Your task to perform on an android device: turn on notifications settings in the gmail app Image 0: 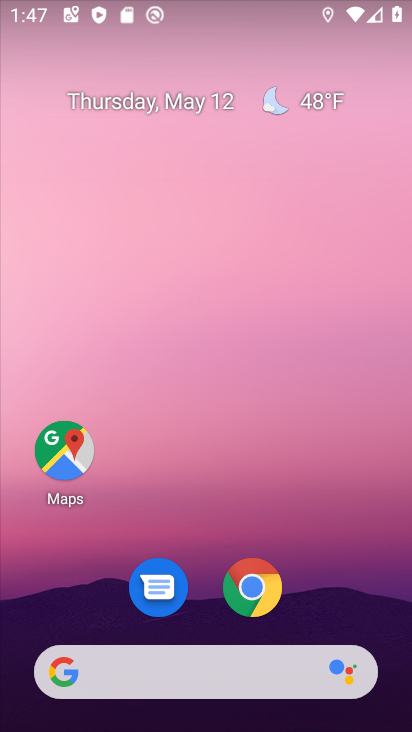
Step 0: click (255, 598)
Your task to perform on an android device: turn on notifications settings in the gmail app Image 1: 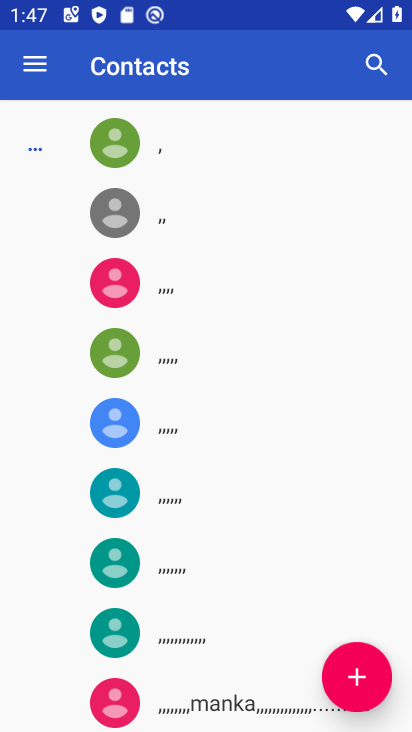
Step 1: press home button
Your task to perform on an android device: turn on notifications settings in the gmail app Image 2: 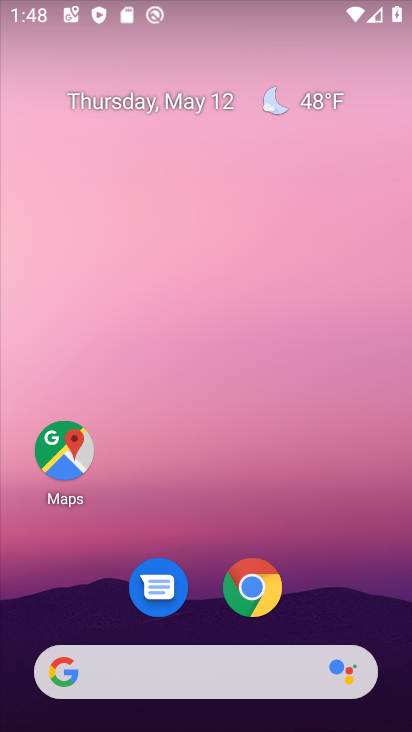
Step 2: drag from (272, 629) to (272, 261)
Your task to perform on an android device: turn on notifications settings in the gmail app Image 3: 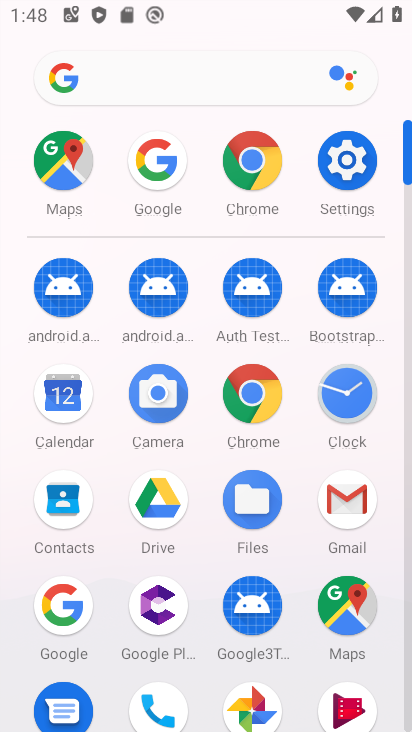
Step 3: click (343, 516)
Your task to perform on an android device: turn on notifications settings in the gmail app Image 4: 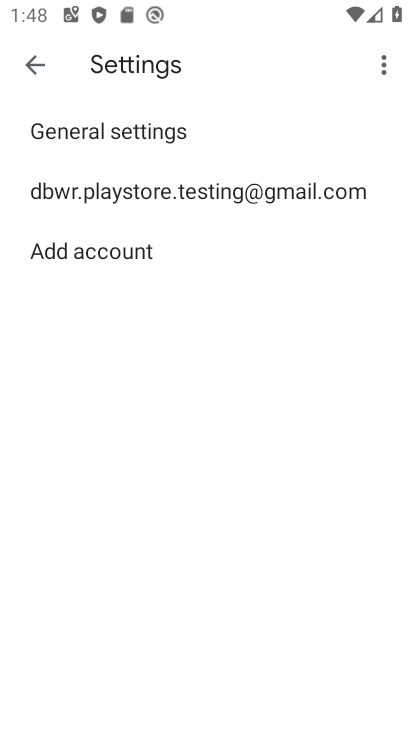
Step 4: click (150, 149)
Your task to perform on an android device: turn on notifications settings in the gmail app Image 5: 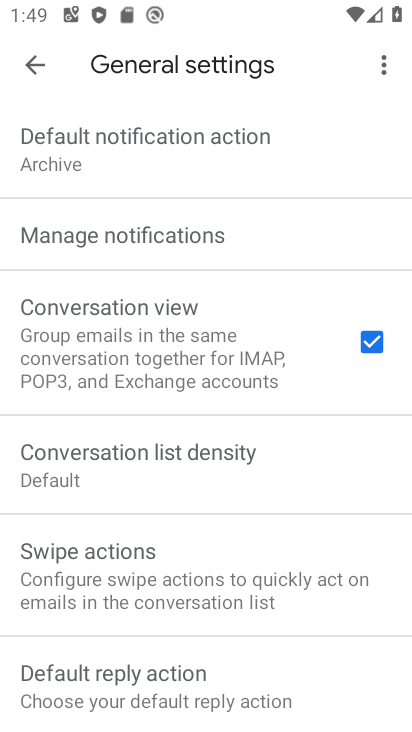
Step 5: click (148, 246)
Your task to perform on an android device: turn on notifications settings in the gmail app Image 6: 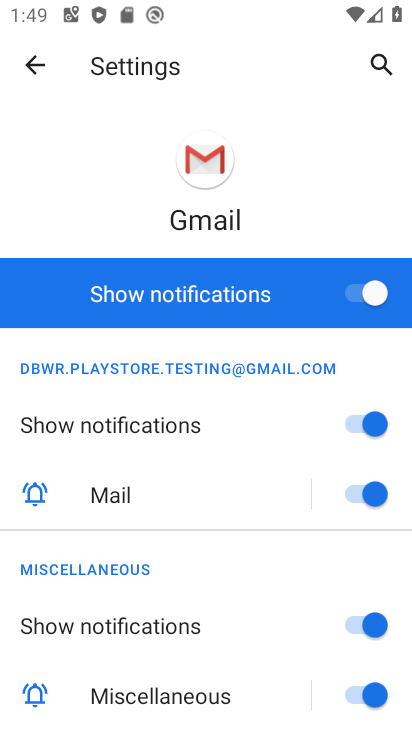
Step 6: task complete